Your task to perform on an android device: change timer sound Image 0: 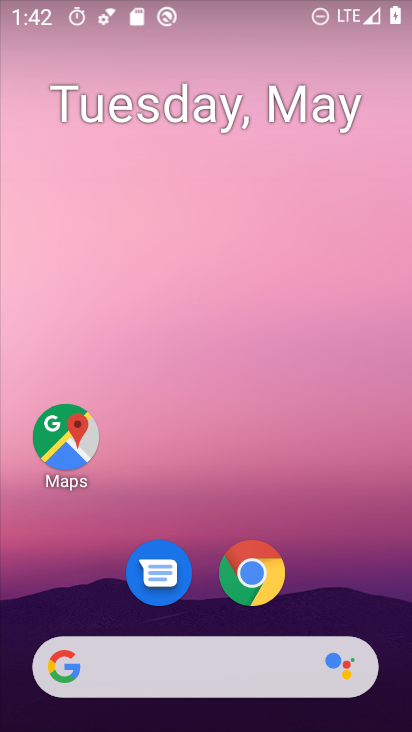
Step 0: drag from (346, 591) to (385, 53)
Your task to perform on an android device: change timer sound Image 1: 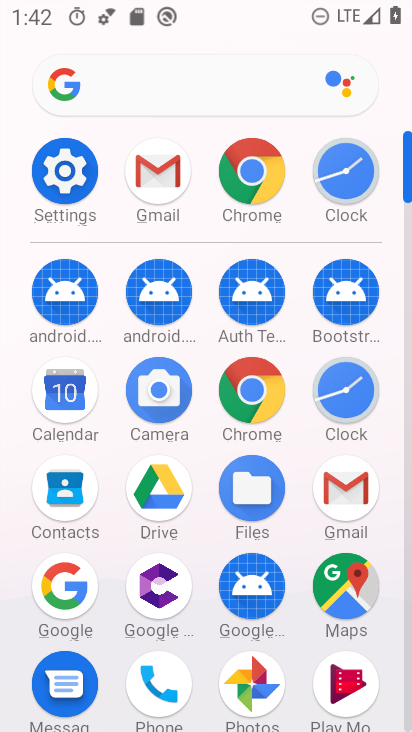
Step 1: click (351, 175)
Your task to perform on an android device: change timer sound Image 2: 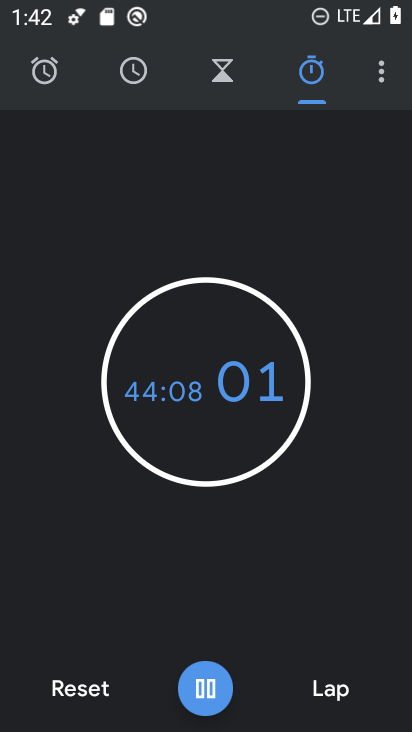
Step 2: click (352, 40)
Your task to perform on an android device: change timer sound Image 3: 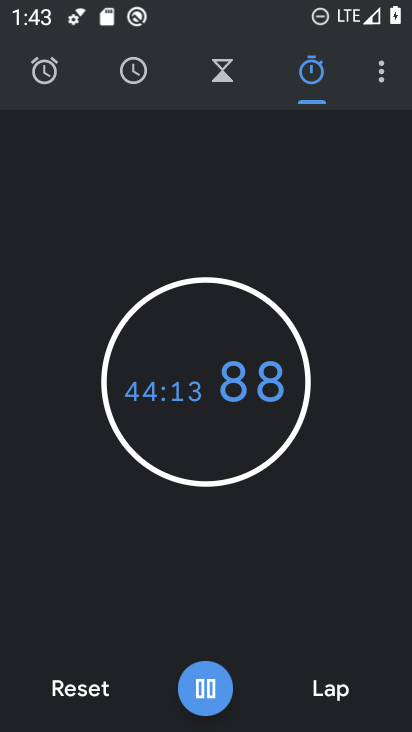
Step 3: click (371, 74)
Your task to perform on an android device: change timer sound Image 4: 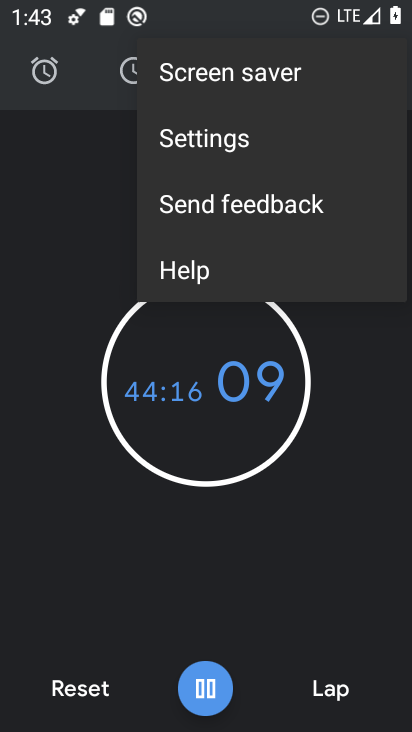
Step 4: click (262, 141)
Your task to perform on an android device: change timer sound Image 5: 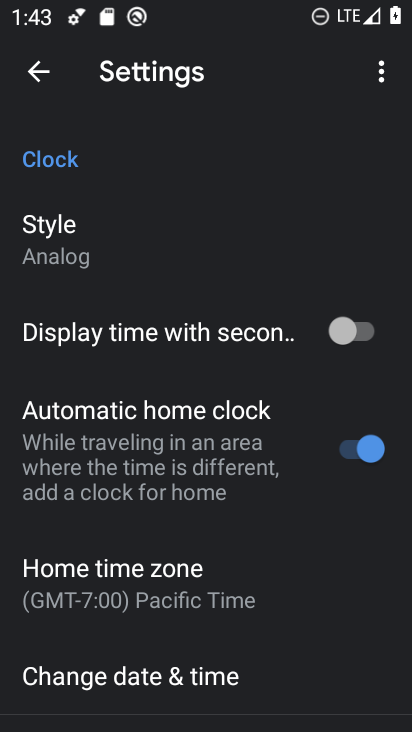
Step 5: drag from (151, 646) to (136, 382)
Your task to perform on an android device: change timer sound Image 6: 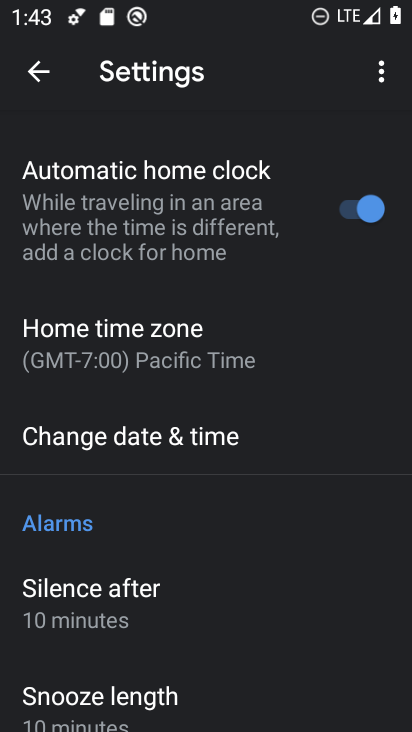
Step 6: drag from (125, 648) to (142, 308)
Your task to perform on an android device: change timer sound Image 7: 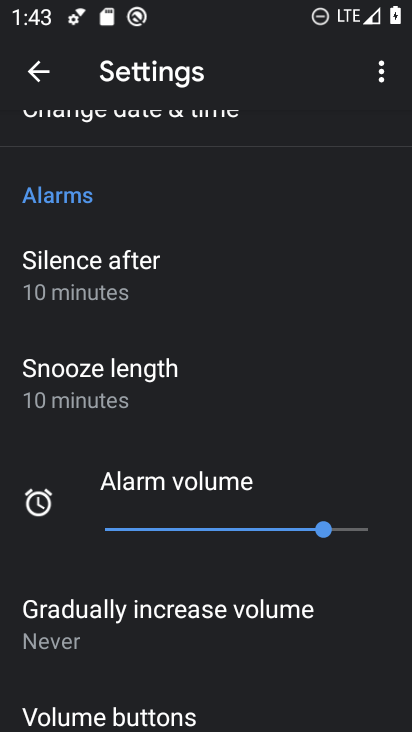
Step 7: drag from (143, 640) to (176, 344)
Your task to perform on an android device: change timer sound Image 8: 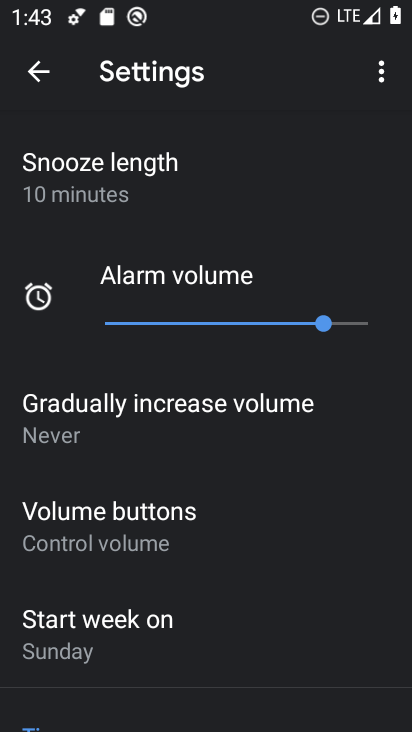
Step 8: drag from (192, 634) to (200, 307)
Your task to perform on an android device: change timer sound Image 9: 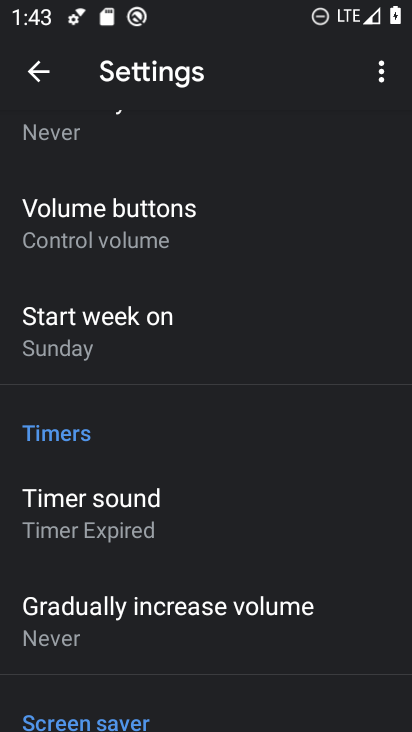
Step 9: drag from (178, 580) to (167, 345)
Your task to perform on an android device: change timer sound Image 10: 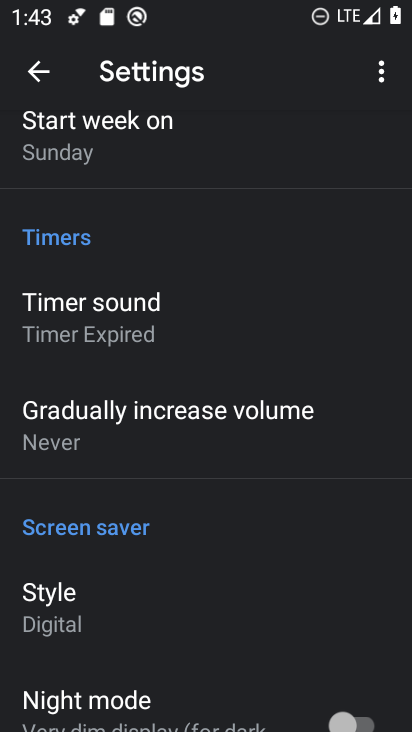
Step 10: click (149, 329)
Your task to perform on an android device: change timer sound Image 11: 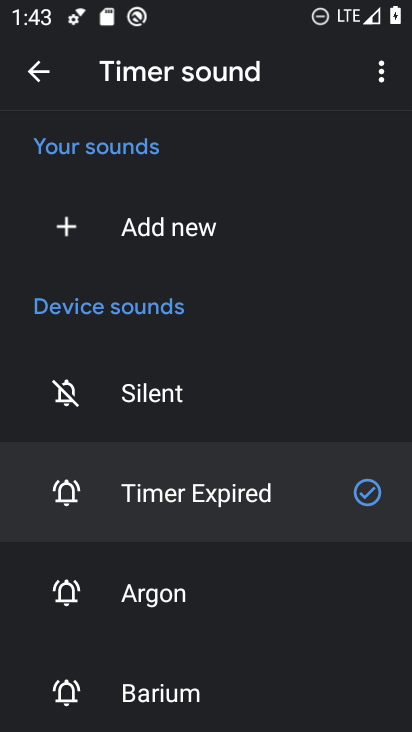
Step 11: click (203, 601)
Your task to perform on an android device: change timer sound Image 12: 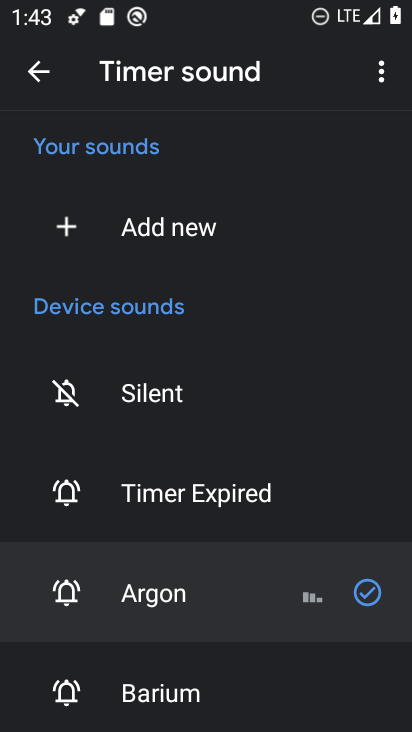
Step 12: task complete